Your task to perform on an android device: Is it going to rain this weekend? Image 0: 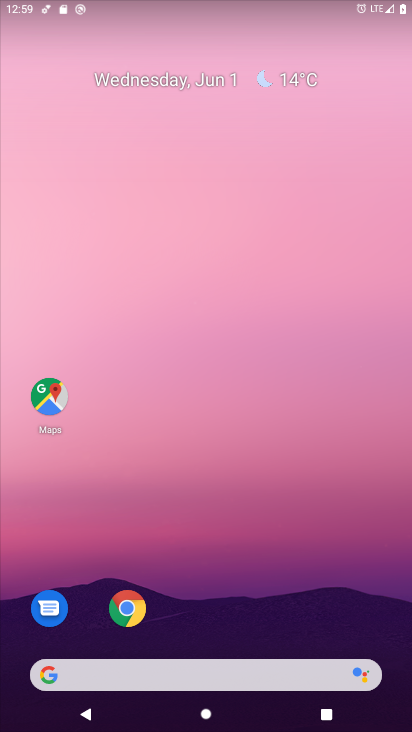
Step 0: click (291, 80)
Your task to perform on an android device: Is it going to rain this weekend? Image 1: 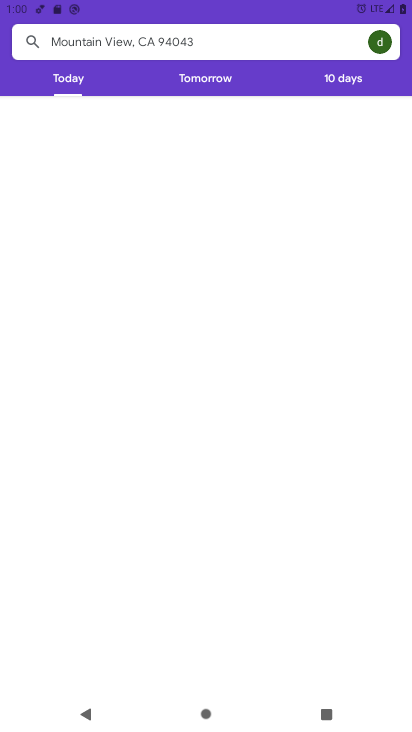
Step 1: click (336, 82)
Your task to perform on an android device: Is it going to rain this weekend? Image 2: 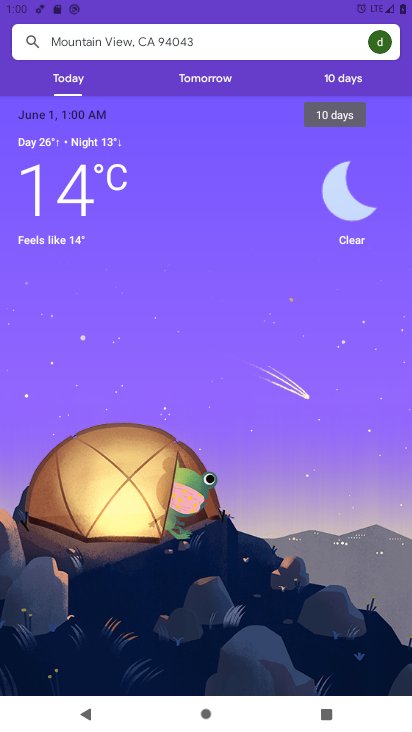
Step 2: click (336, 82)
Your task to perform on an android device: Is it going to rain this weekend? Image 3: 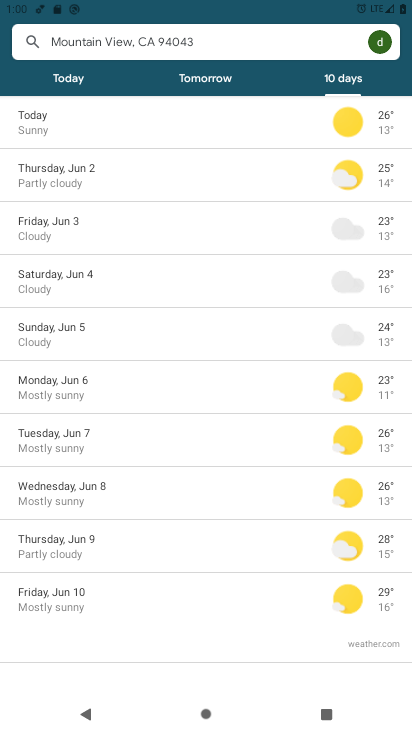
Step 3: task complete